Your task to perform on an android device: turn off improve location accuracy Image 0: 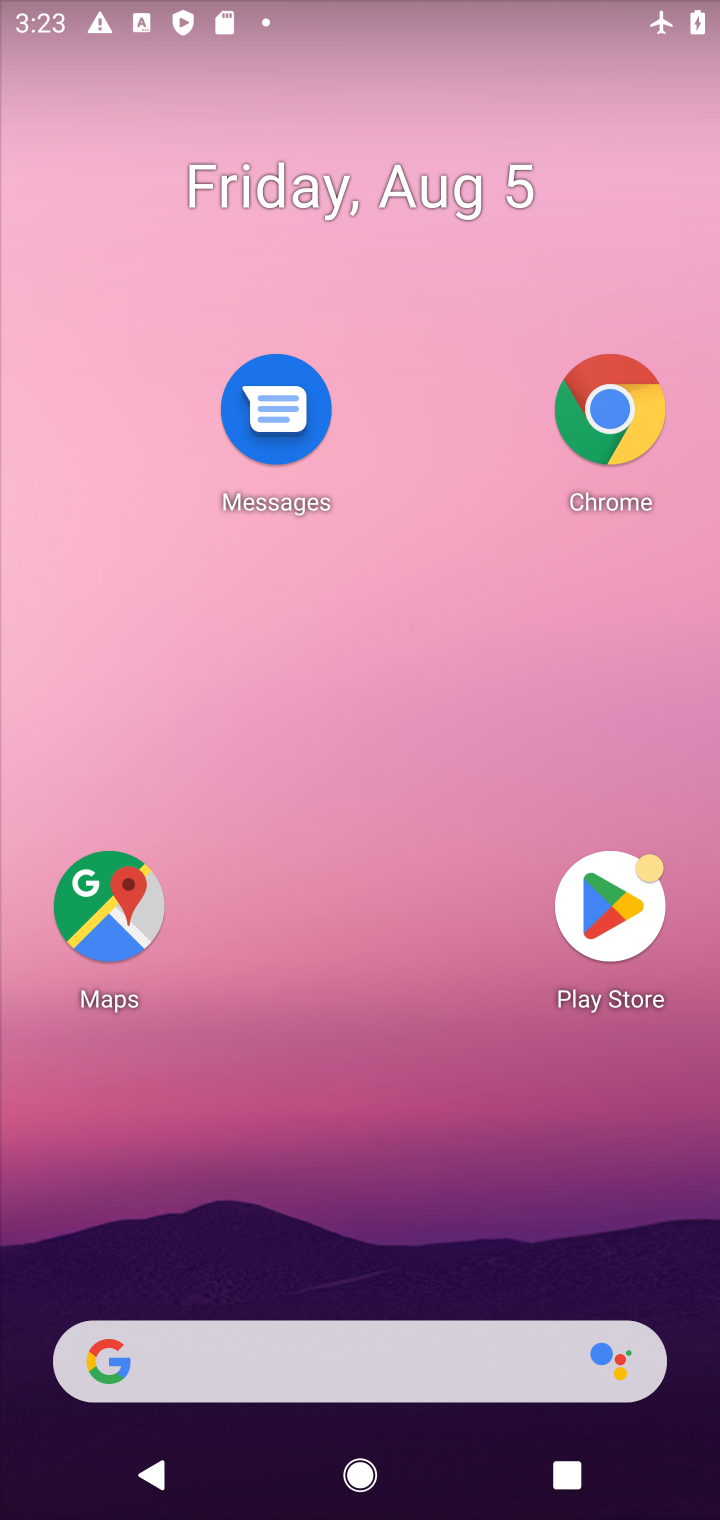
Step 0: drag from (404, 675) to (384, 165)
Your task to perform on an android device: turn off improve location accuracy Image 1: 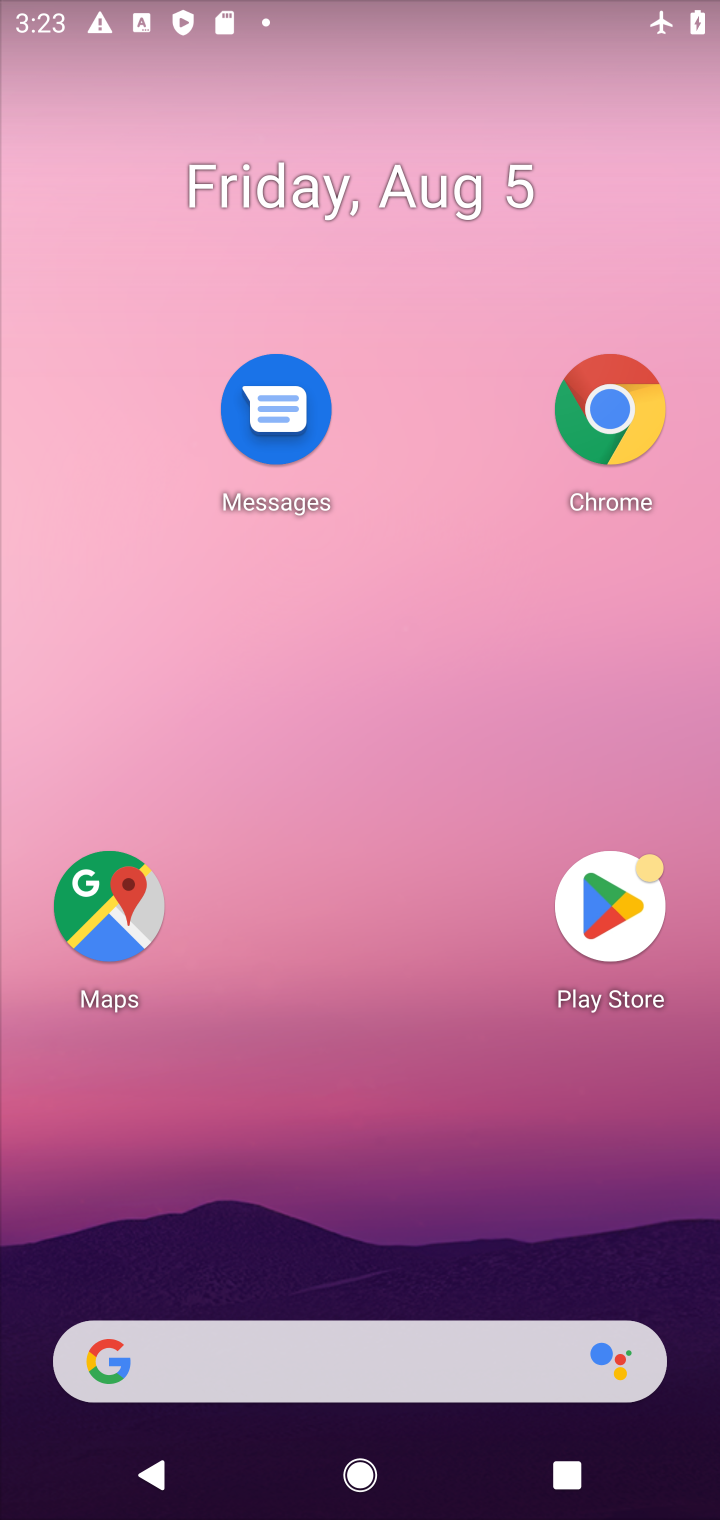
Step 1: drag from (326, 951) to (326, 231)
Your task to perform on an android device: turn off improve location accuracy Image 2: 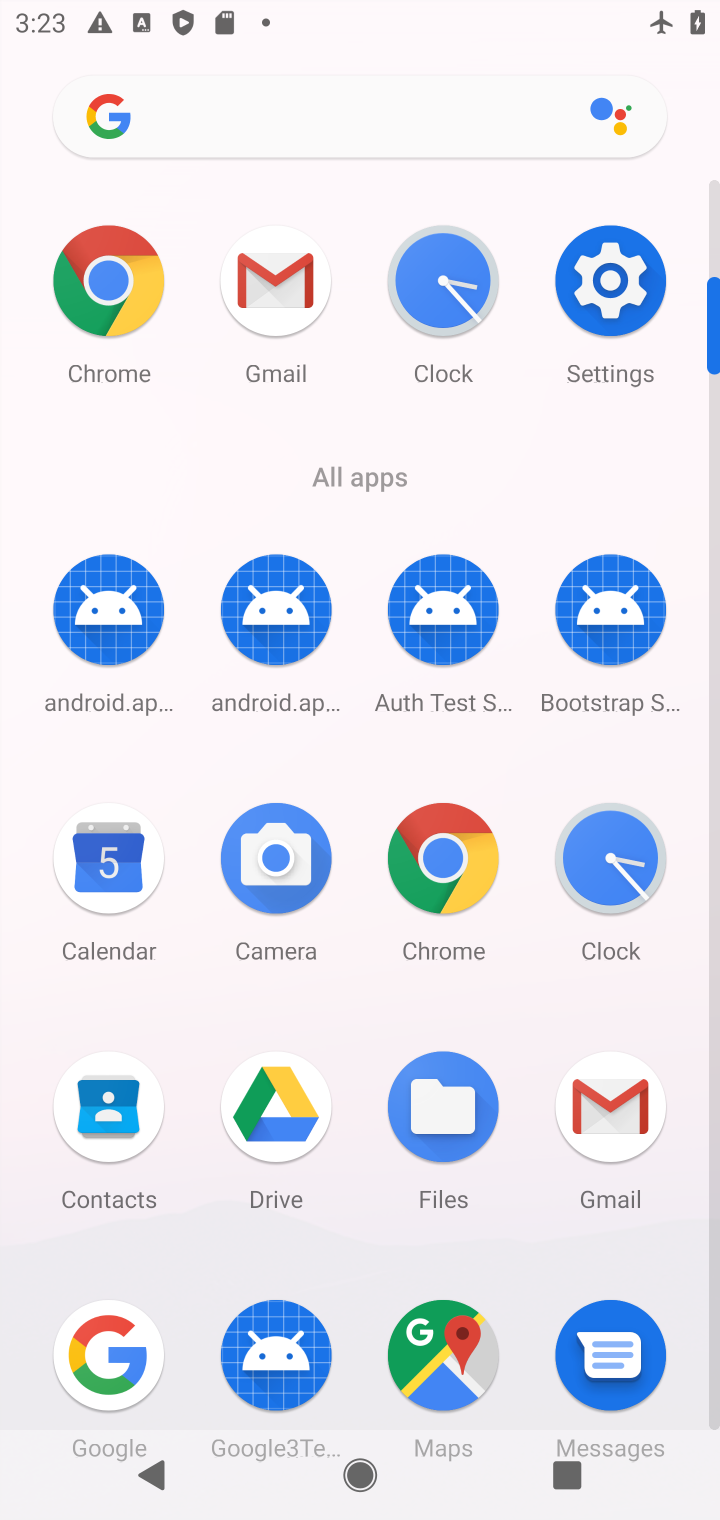
Step 2: click (597, 287)
Your task to perform on an android device: turn off improve location accuracy Image 3: 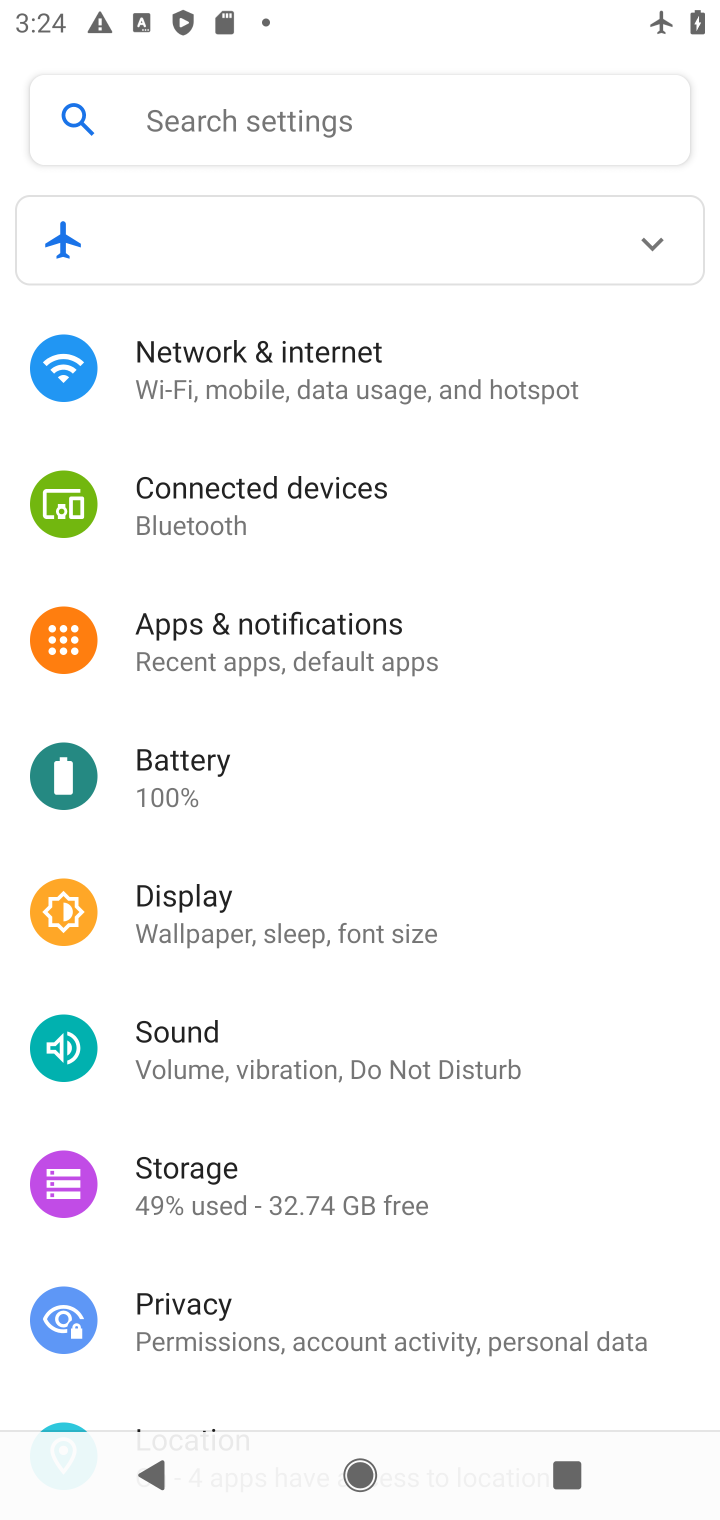
Step 3: drag from (353, 1222) to (373, 557)
Your task to perform on an android device: turn off improve location accuracy Image 4: 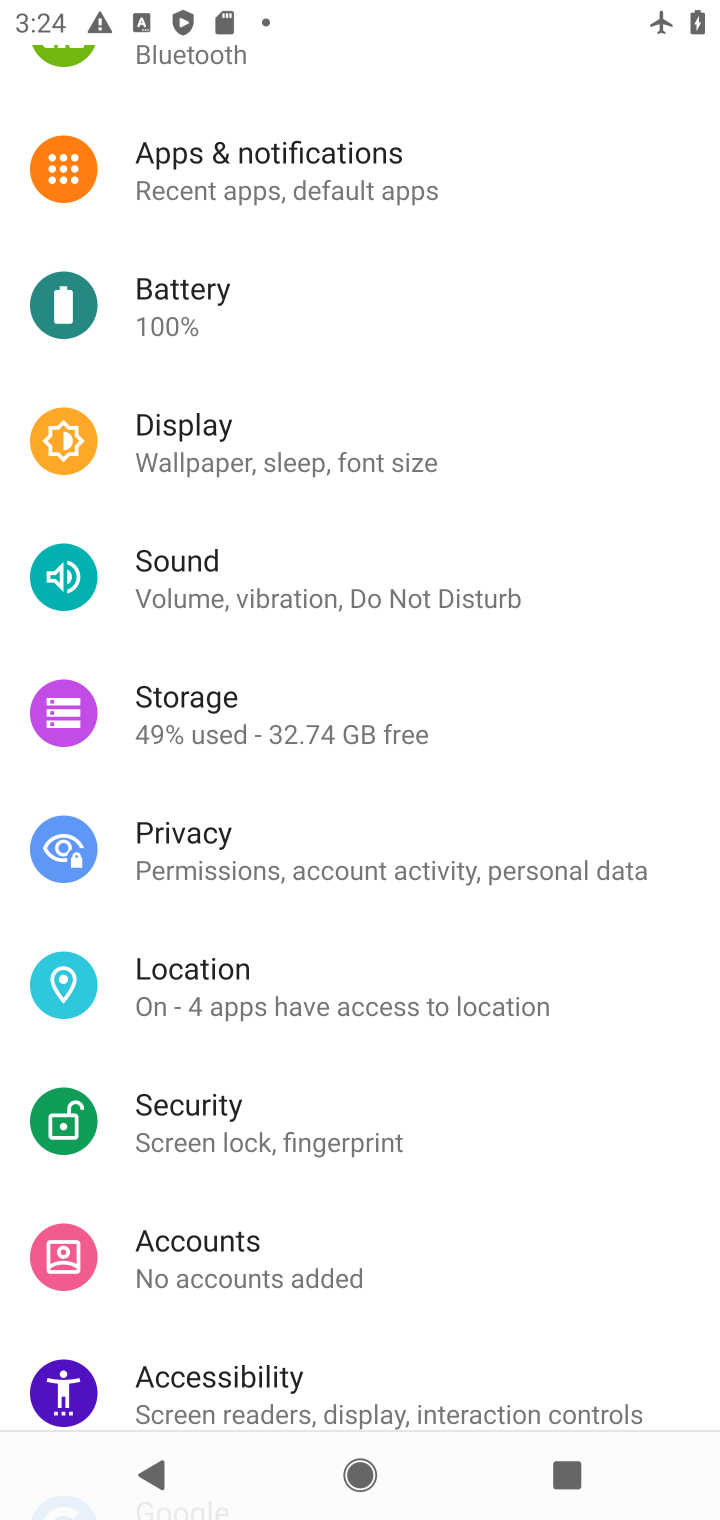
Step 4: click (237, 1037)
Your task to perform on an android device: turn off improve location accuracy Image 5: 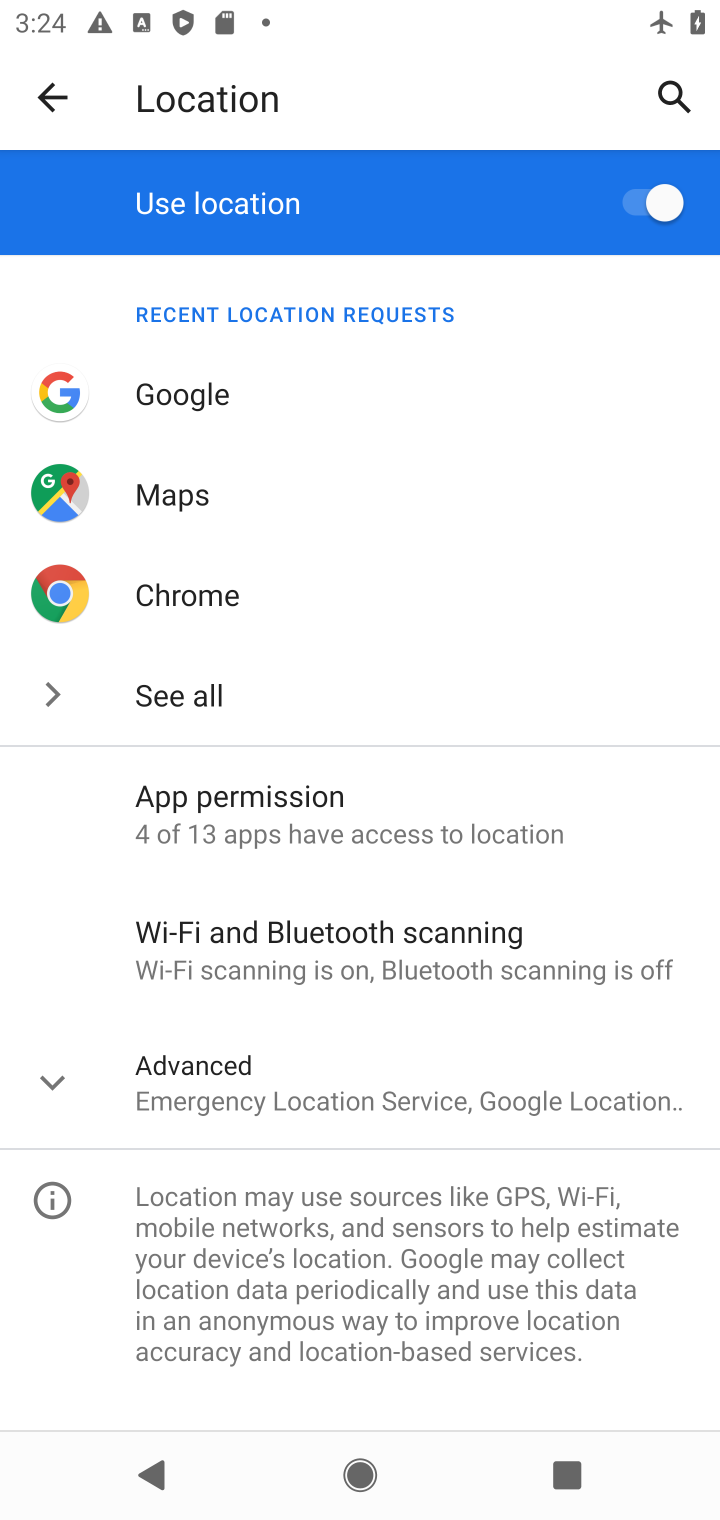
Step 5: click (288, 1087)
Your task to perform on an android device: turn off improve location accuracy Image 6: 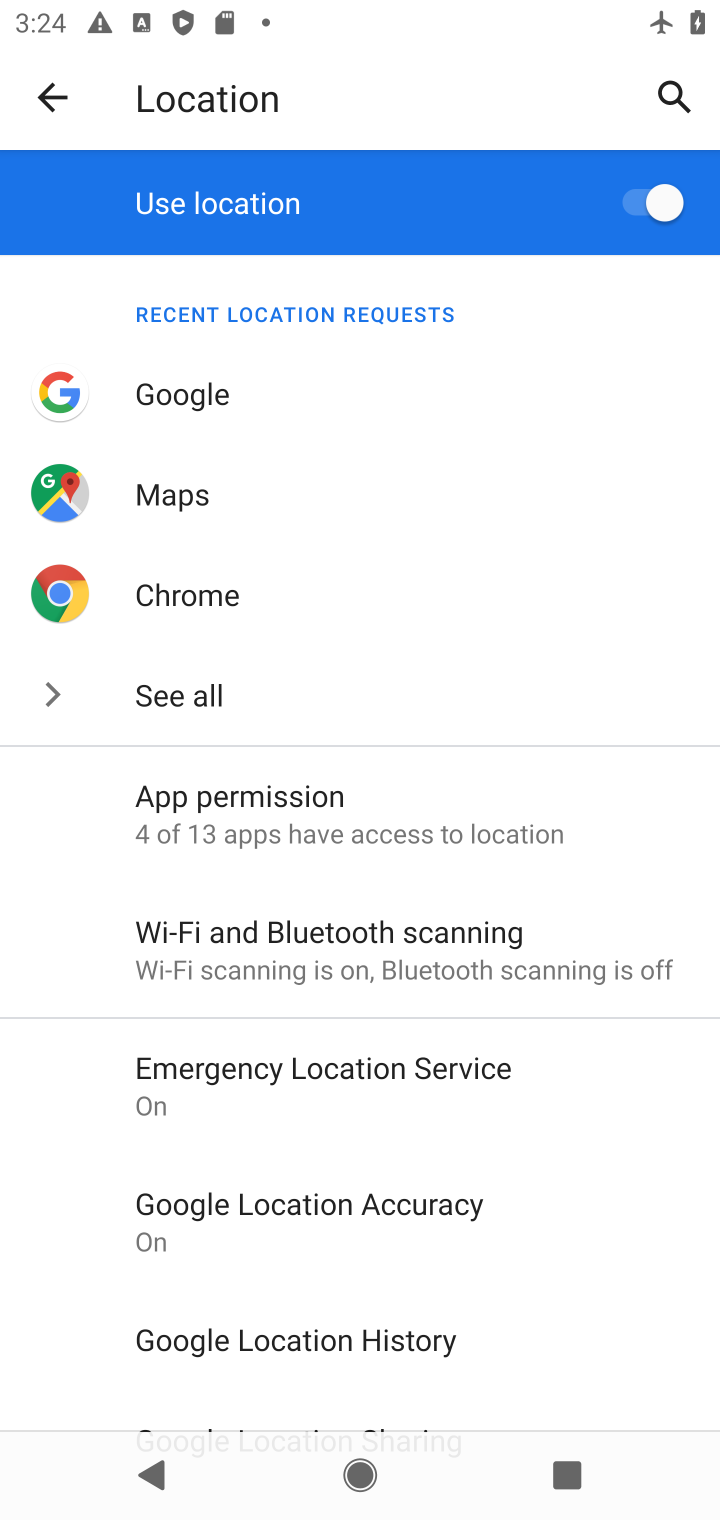
Step 6: click (376, 1233)
Your task to perform on an android device: turn off improve location accuracy Image 7: 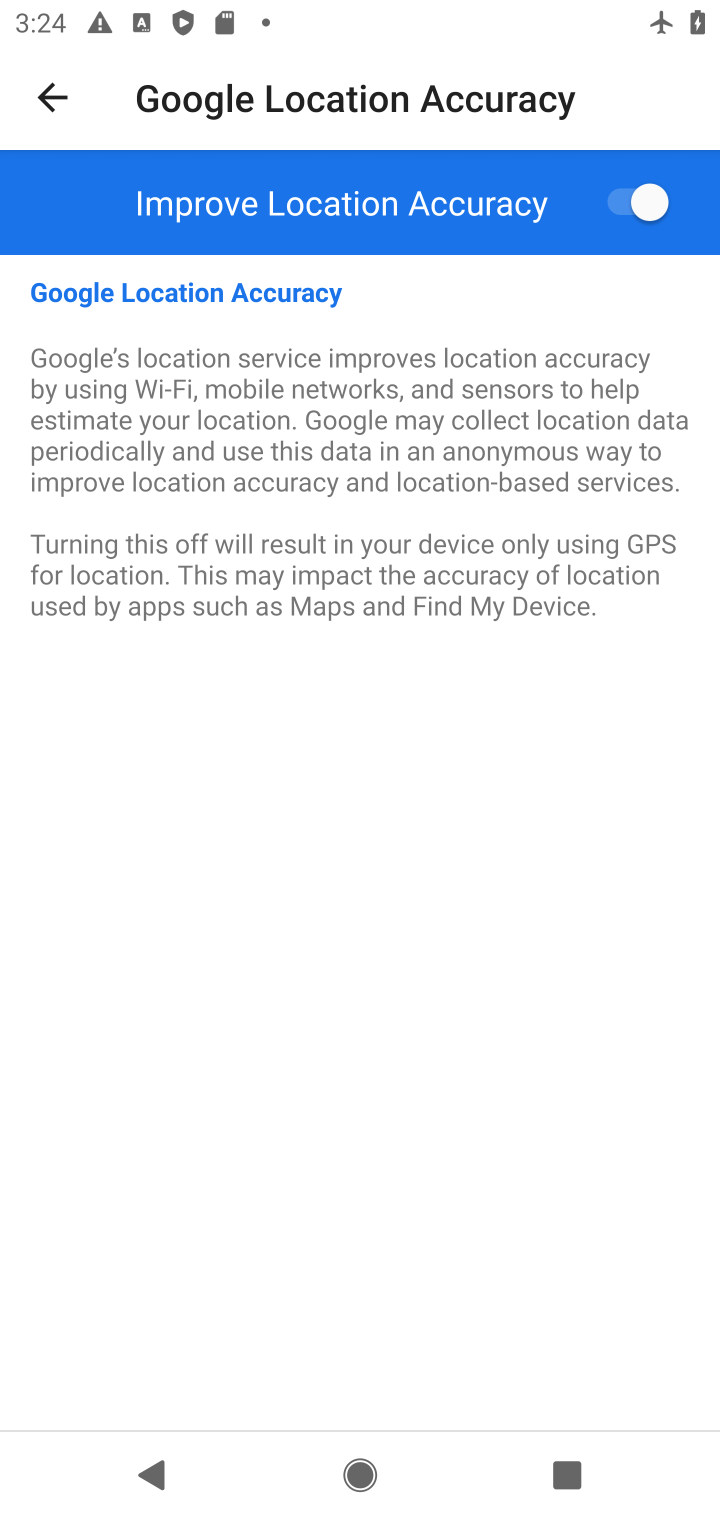
Step 7: click (631, 199)
Your task to perform on an android device: turn off improve location accuracy Image 8: 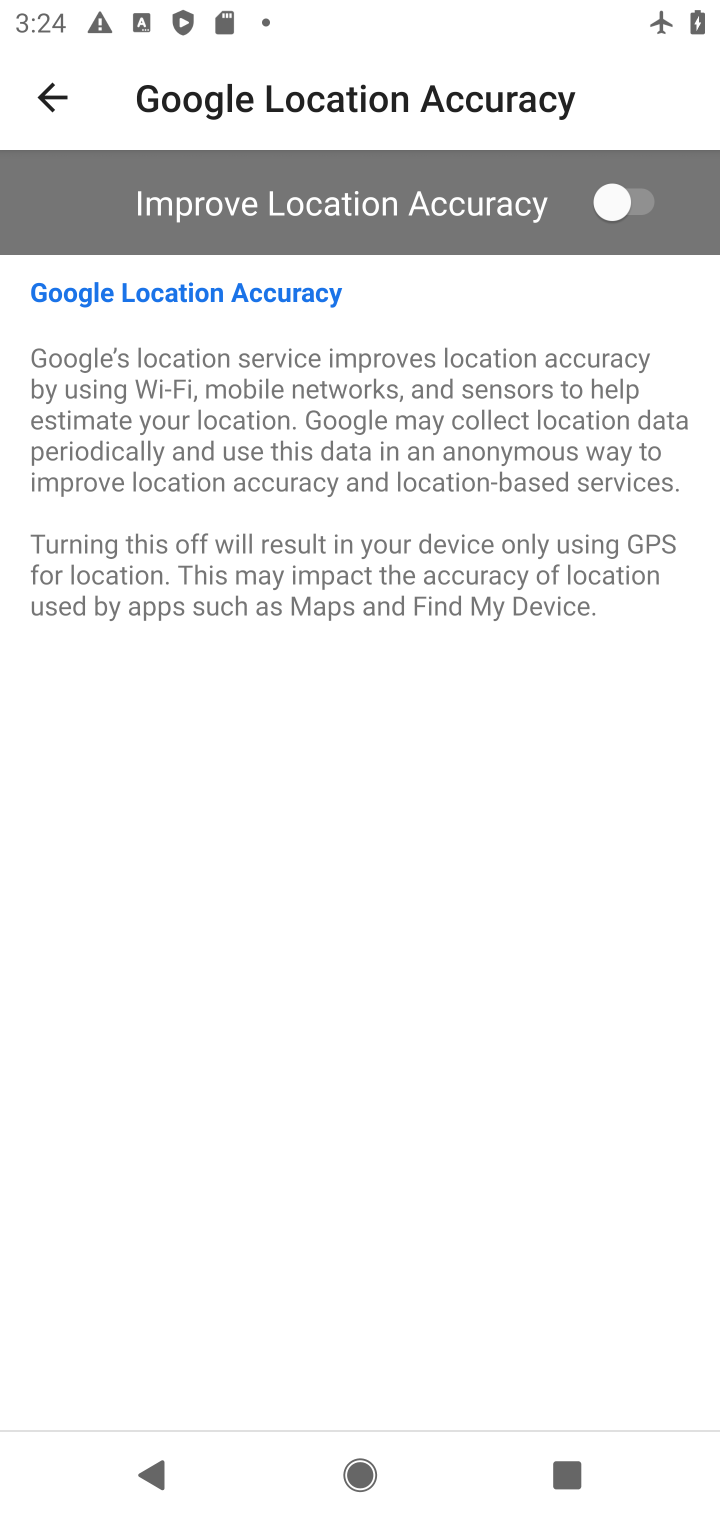
Step 8: task complete